Your task to perform on an android device: toggle show notifications on the lock screen Image 0: 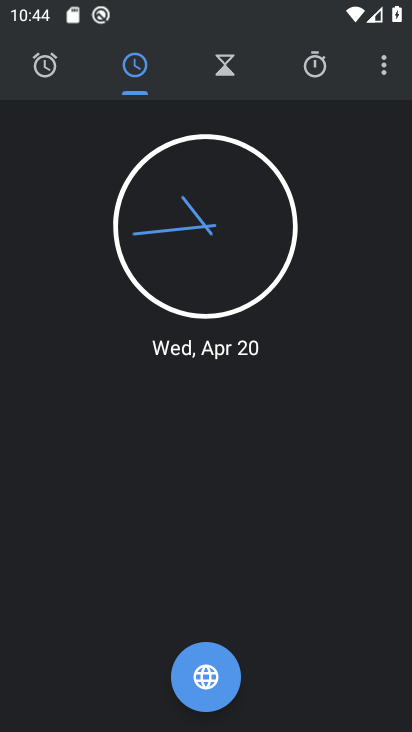
Step 0: press home button
Your task to perform on an android device: toggle show notifications on the lock screen Image 1: 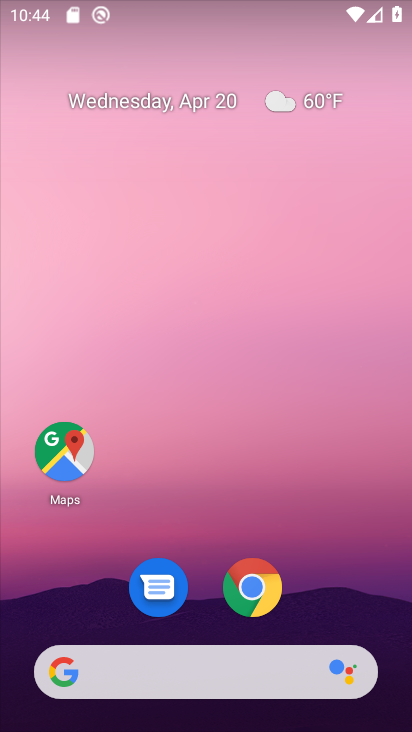
Step 1: drag from (204, 537) to (220, 13)
Your task to perform on an android device: toggle show notifications on the lock screen Image 2: 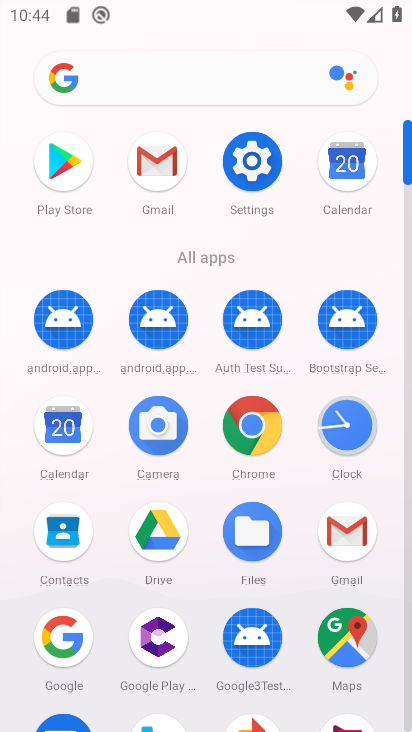
Step 2: click (251, 152)
Your task to perform on an android device: toggle show notifications on the lock screen Image 3: 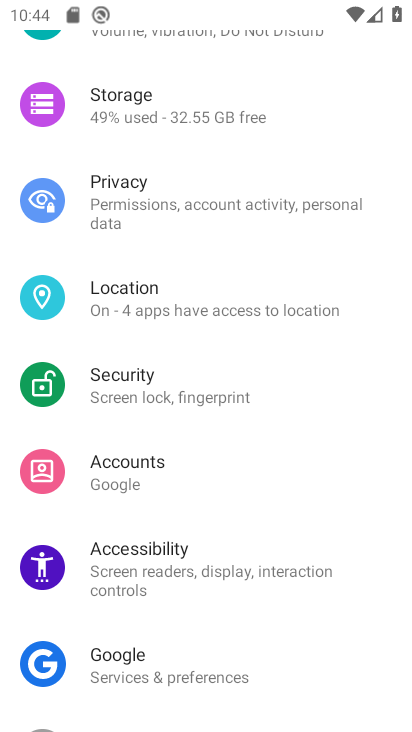
Step 3: drag from (183, 165) to (192, 644)
Your task to perform on an android device: toggle show notifications on the lock screen Image 4: 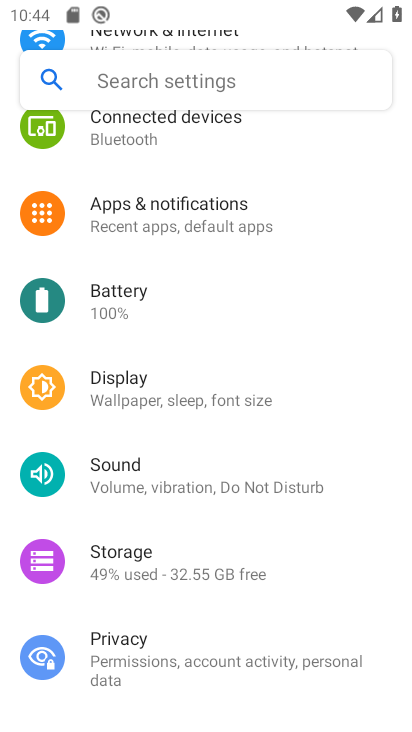
Step 4: click (266, 202)
Your task to perform on an android device: toggle show notifications on the lock screen Image 5: 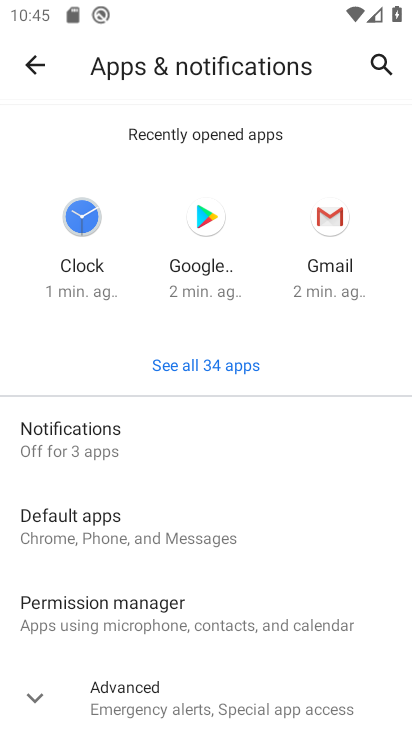
Step 5: drag from (203, 673) to (202, 271)
Your task to perform on an android device: toggle show notifications on the lock screen Image 6: 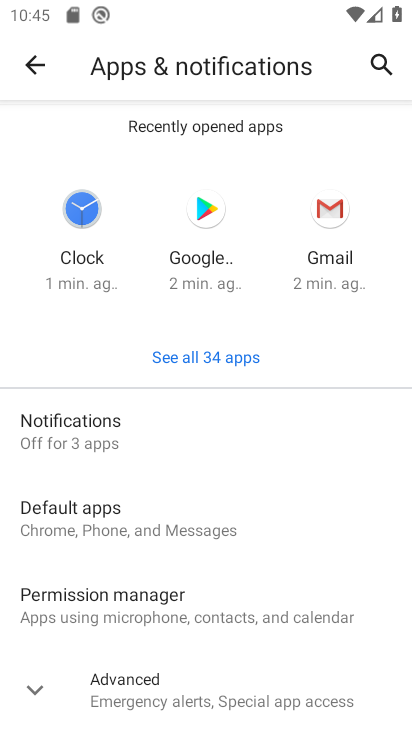
Step 6: click (129, 429)
Your task to perform on an android device: toggle show notifications on the lock screen Image 7: 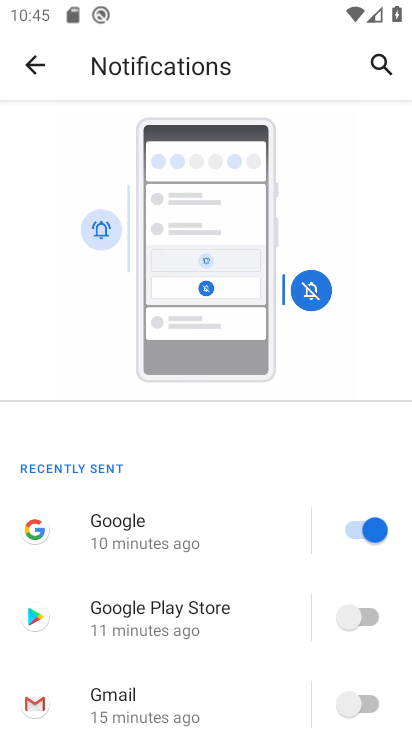
Step 7: drag from (262, 680) to (268, 88)
Your task to perform on an android device: toggle show notifications on the lock screen Image 8: 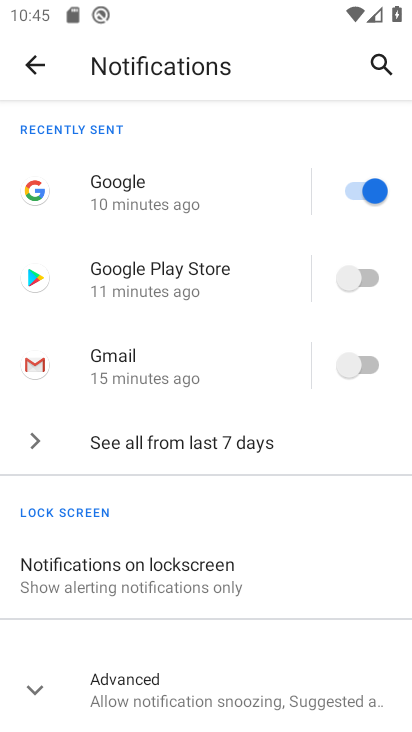
Step 8: click (251, 576)
Your task to perform on an android device: toggle show notifications on the lock screen Image 9: 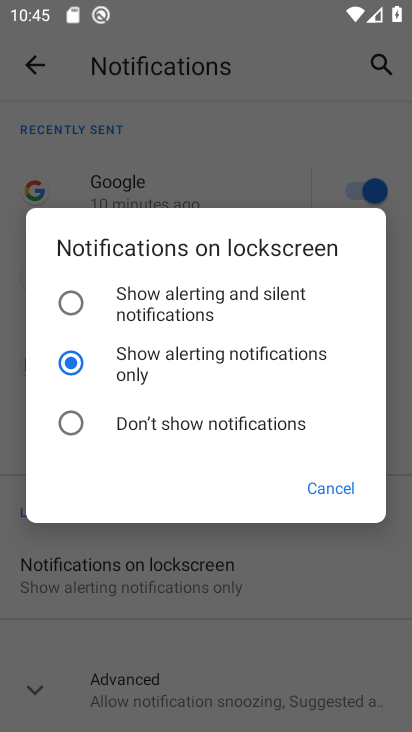
Step 9: click (70, 304)
Your task to perform on an android device: toggle show notifications on the lock screen Image 10: 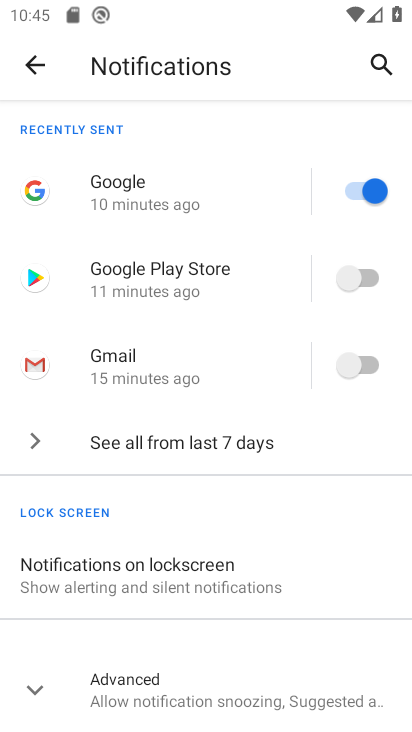
Step 10: task complete